Your task to perform on an android device: uninstall "ZOOM Cloud Meetings" Image 0: 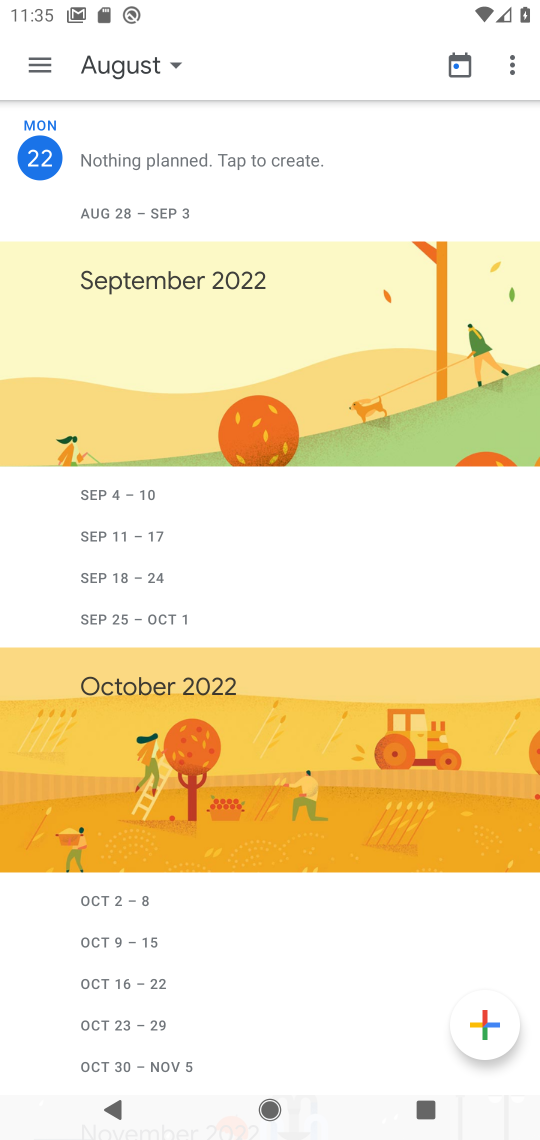
Step 0: press home button
Your task to perform on an android device: uninstall "ZOOM Cloud Meetings" Image 1: 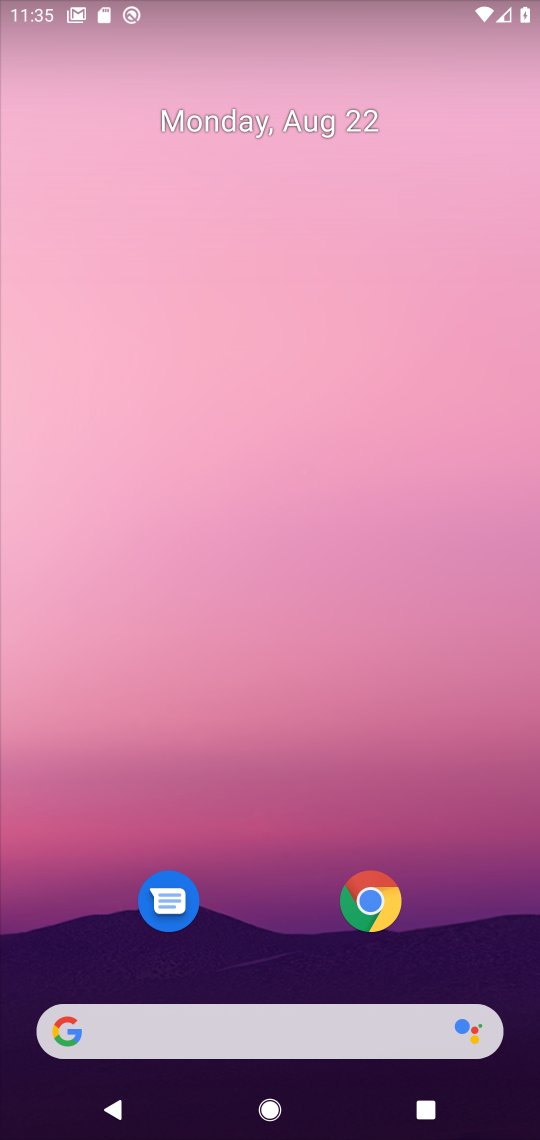
Step 1: drag from (280, 669) to (295, 125)
Your task to perform on an android device: uninstall "ZOOM Cloud Meetings" Image 2: 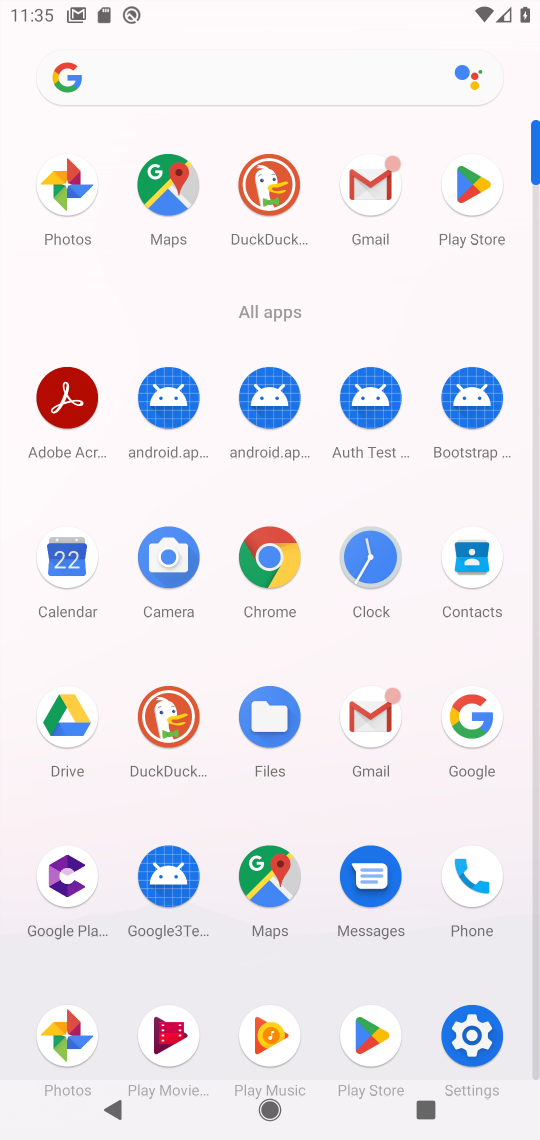
Step 2: click (477, 215)
Your task to perform on an android device: uninstall "ZOOM Cloud Meetings" Image 3: 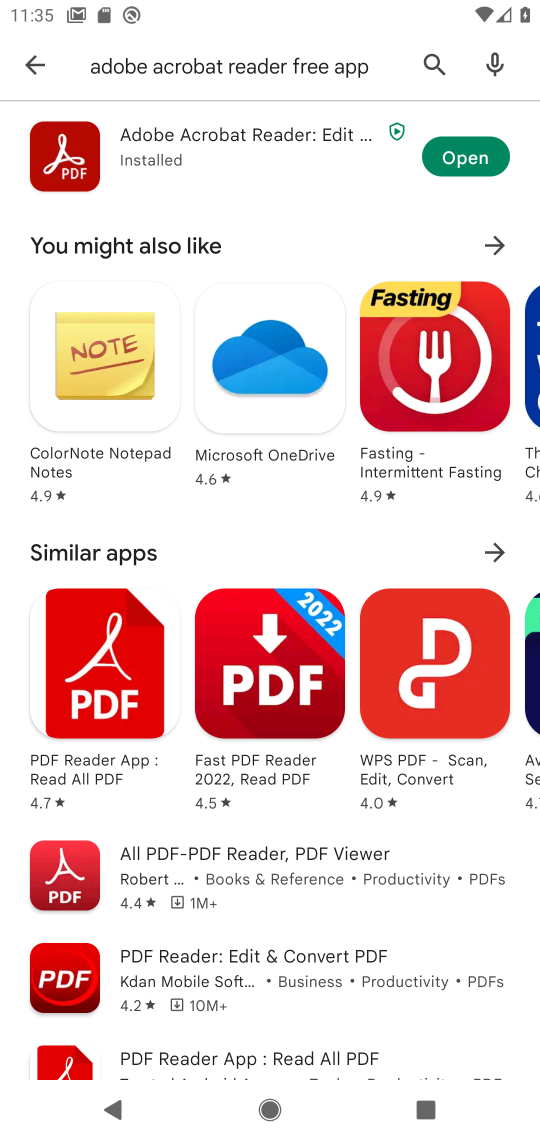
Step 3: click (222, 66)
Your task to perform on an android device: uninstall "ZOOM Cloud Meetings" Image 4: 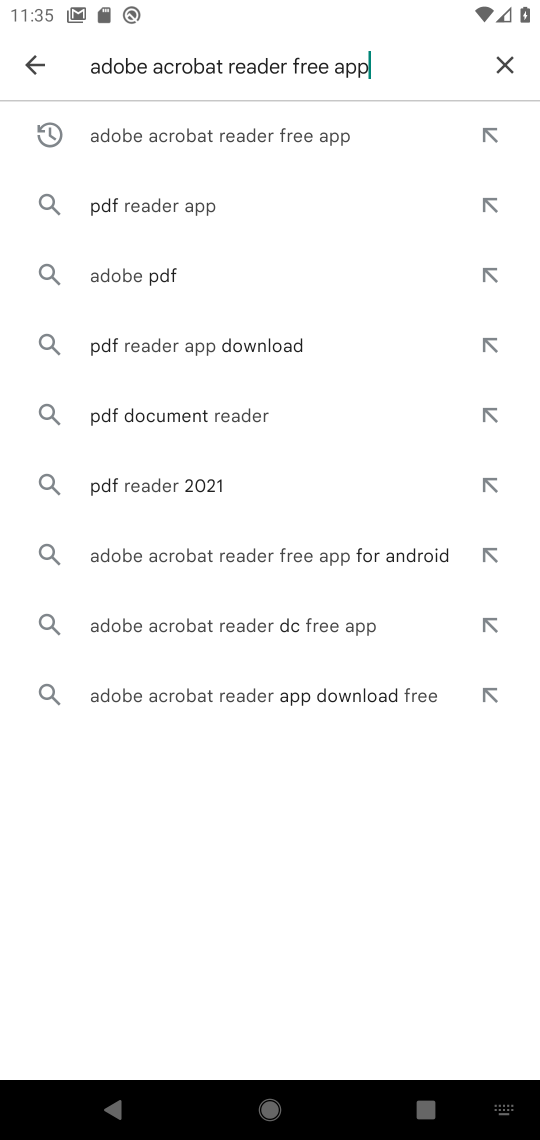
Step 4: click (492, 63)
Your task to perform on an android device: uninstall "ZOOM Cloud Meetings" Image 5: 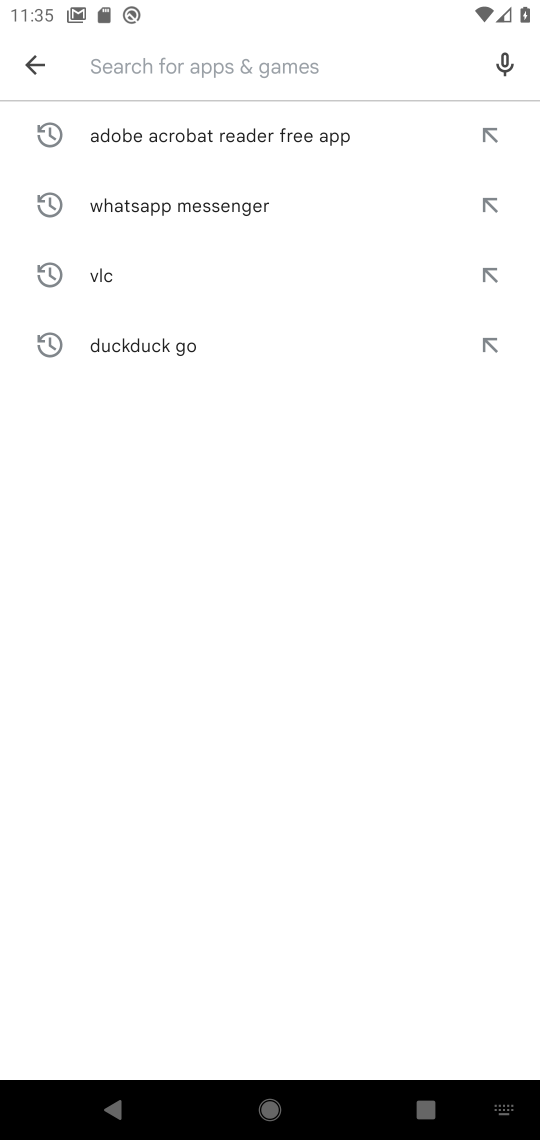
Step 5: type "zoom cloud meetings"
Your task to perform on an android device: uninstall "ZOOM Cloud Meetings" Image 6: 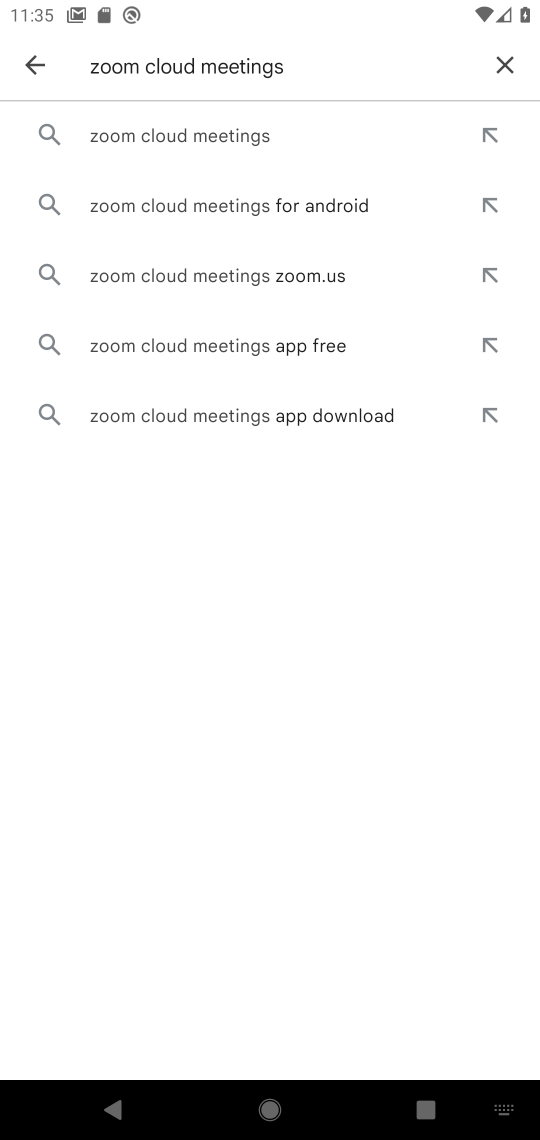
Step 6: click (274, 140)
Your task to perform on an android device: uninstall "ZOOM Cloud Meetings" Image 7: 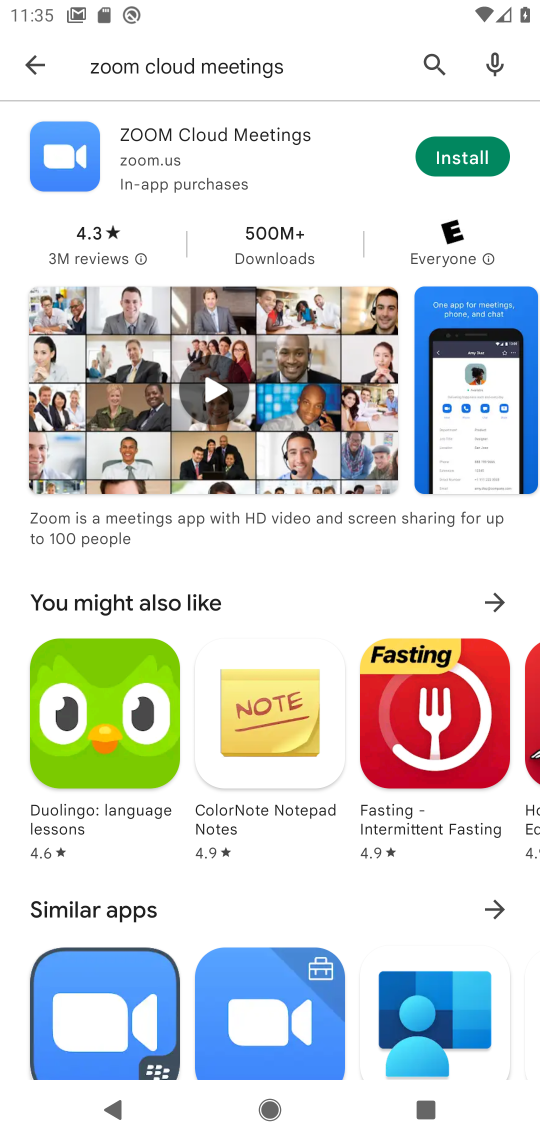
Step 7: task complete